Your task to perform on an android device: Go to sound settings Image 0: 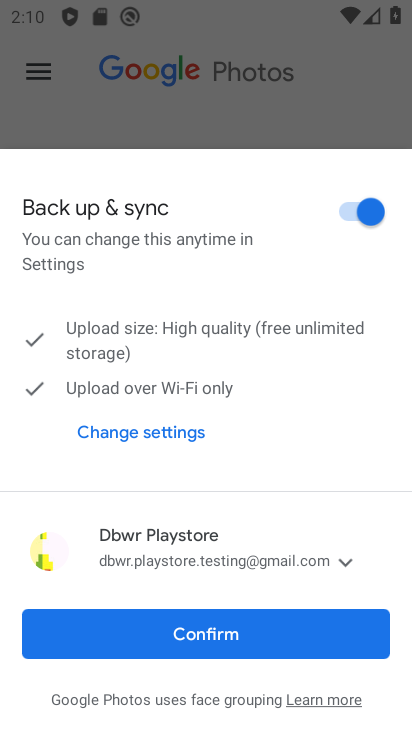
Step 0: press home button
Your task to perform on an android device: Go to sound settings Image 1: 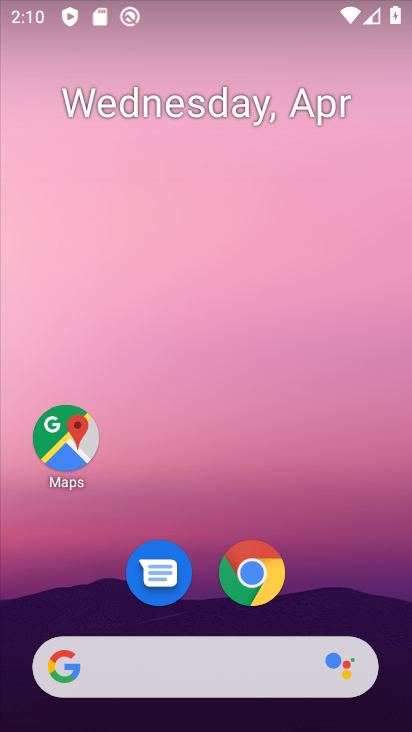
Step 1: drag from (339, 555) to (342, 113)
Your task to perform on an android device: Go to sound settings Image 2: 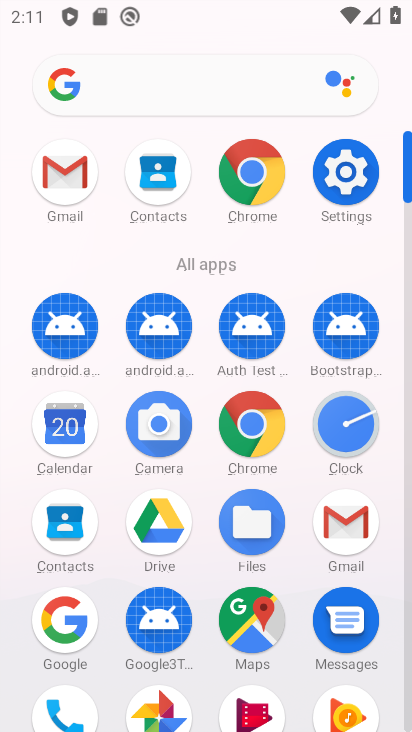
Step 2: click (342, 173)
Your task to perform on an android device: Go to sound settings Image 3: 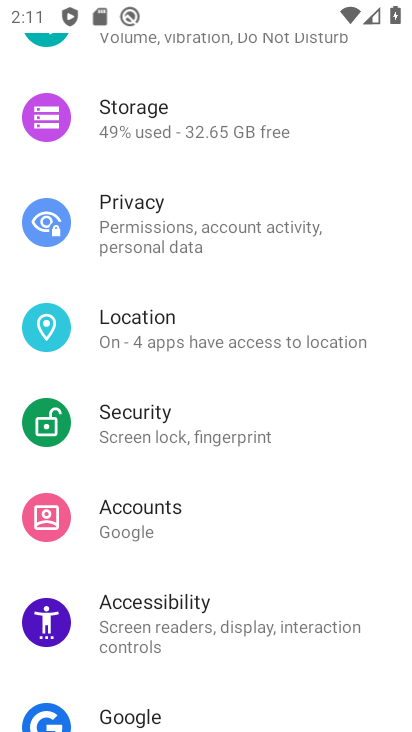
Step 3: drag from (372, 230) to (369, 387)
Your task to perform on an android device: Go to sound settings Image 4: 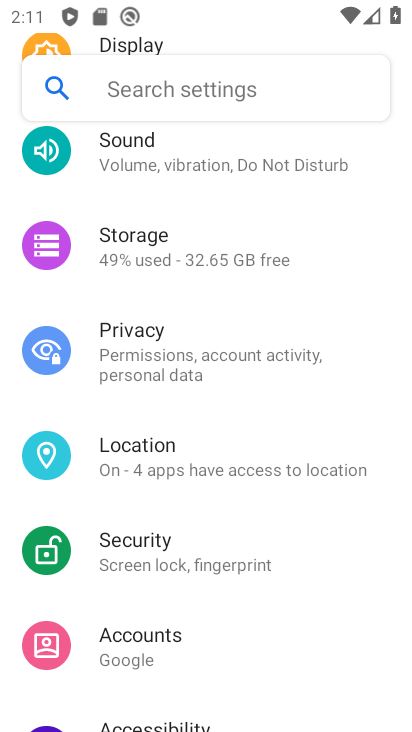
Step 4: drag from (378, 219) to (372, 376)
Your task to perform on an android device: Go to sound settings Image 5: 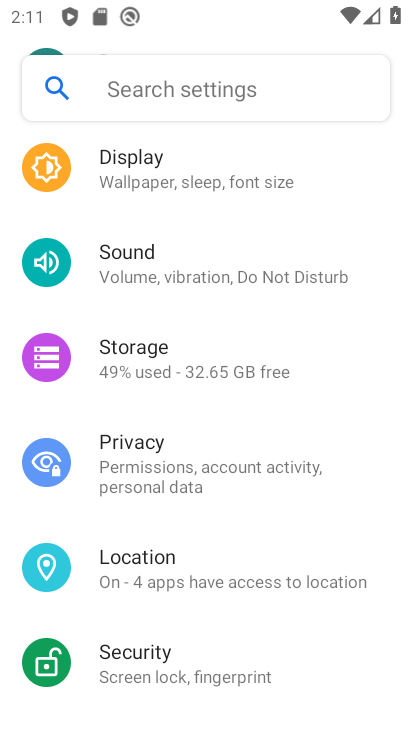
Step 5: drag from (371, 205) to (363, 399)
Your task to perform on an android device: Go to sound settings Image 6: 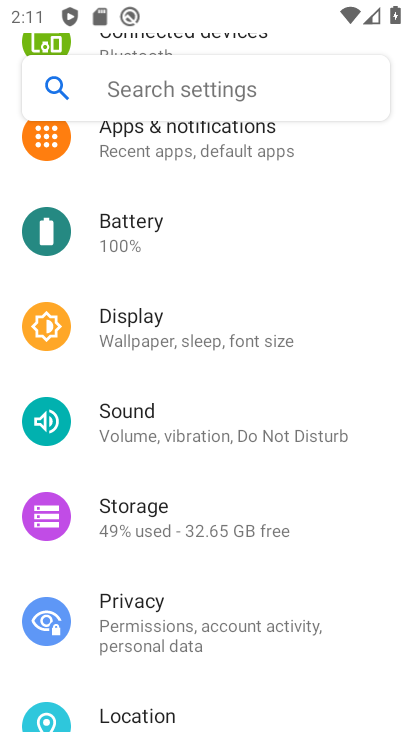
Step 6: drag from (361, 205) to (355, 394)
Your task to perform on an android device: Go to sound settings Image 7: 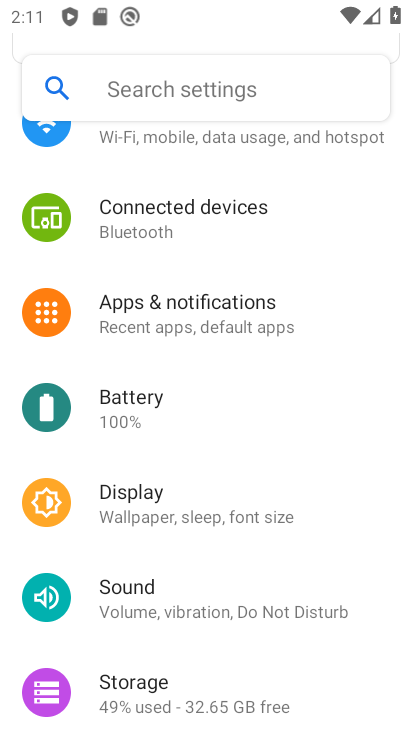
Step 7: drag from (362, 225) to (364, 397)
Your task to perform on an android device: Go to sound settings Image 8: 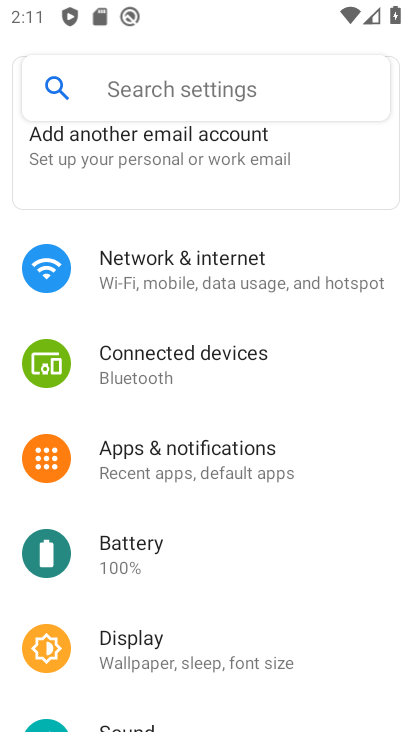
Step 8: drag from (366, 548) to (375, 348)
Your task to perform on an android device: Go to sound settings Image 9: 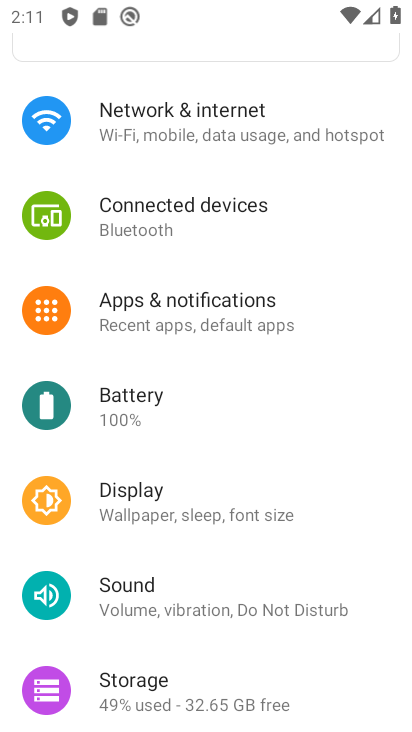
Step 9: drag from (367, 558) to (354, 371)
Your task to perform on an android device: Go to sound settings Image 10: 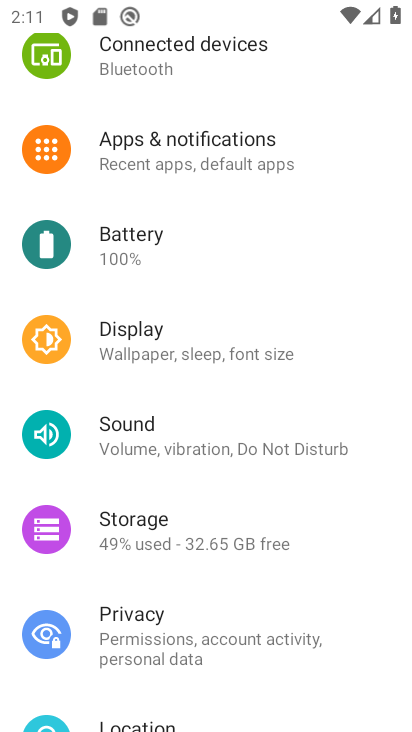
Step 10: click (202, 442)
Your task to perform on an android device: Go to sound settings Image 11: 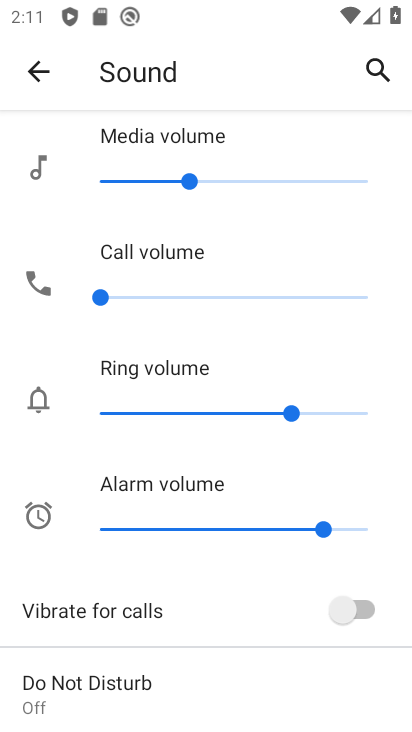
Step 11: task complete